Your task to perform on an android device: What's a good restaurant in Sacramento? Image 0: 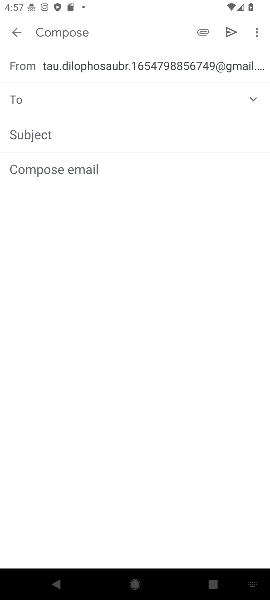
Step 0: press home button
Your task to perform on an android device: What's a good restaurant in Sacramento? Image 1: 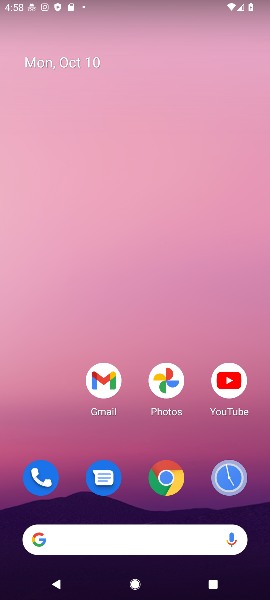
Step 1: click (164, 466)
Your task to perform on an android device: What's a good restaurant in Sacramento? Image 2: 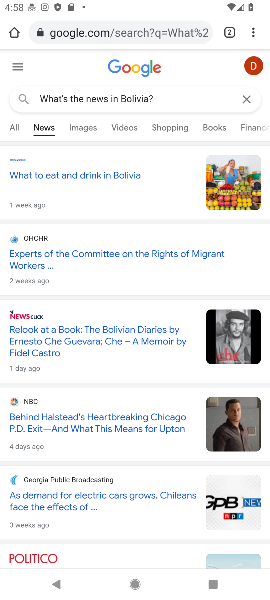
Step 2: click (73, 33)
Your task to perform on an android device: What's a good restaurant in Sacramento? Image 3: 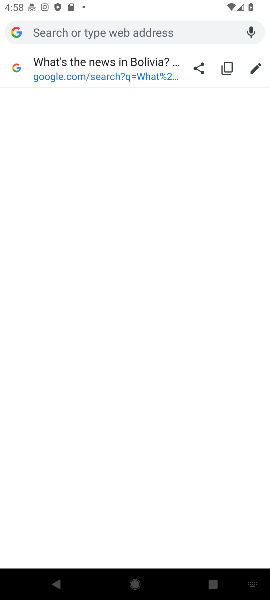
Step 3: type "What's a good restaurant in Sacramento?"
Your task to perform on an android device: What's a good restaurant in Sacramento? Image 4: 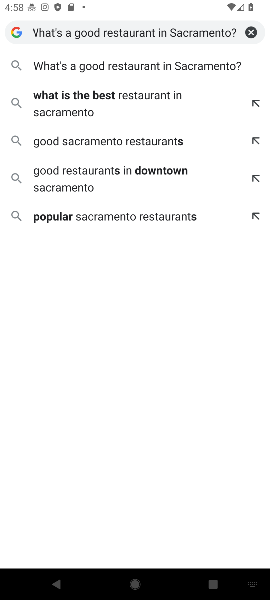
Step 4: click (140, 64)
Your task to perform on an android device: What's a good restaurant in Sacramento? Image 5: 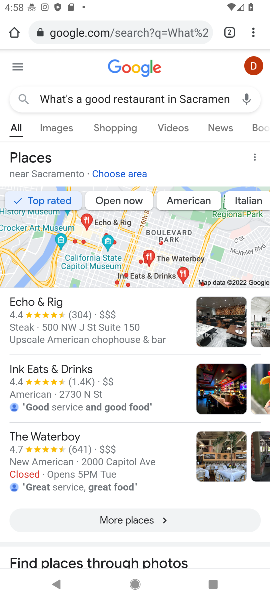
Step 5: task complete